Your task to perform on an android device: find which apps use the phone's location Image 0: 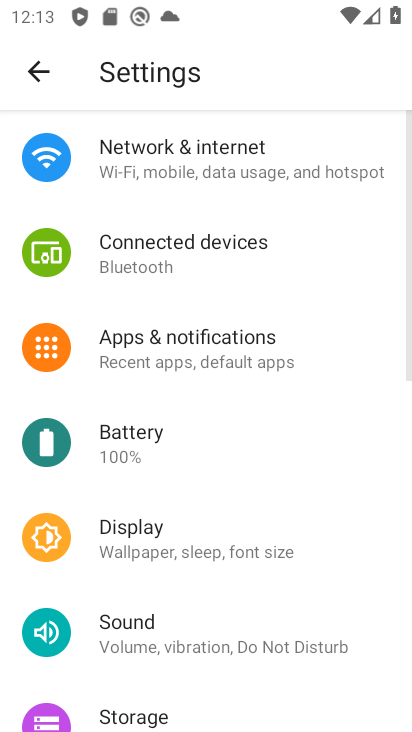
Step 0: drag from (187, 670) to (373, 246)
Your task to perform on an android device: find which apps use the phone's location Image 1: 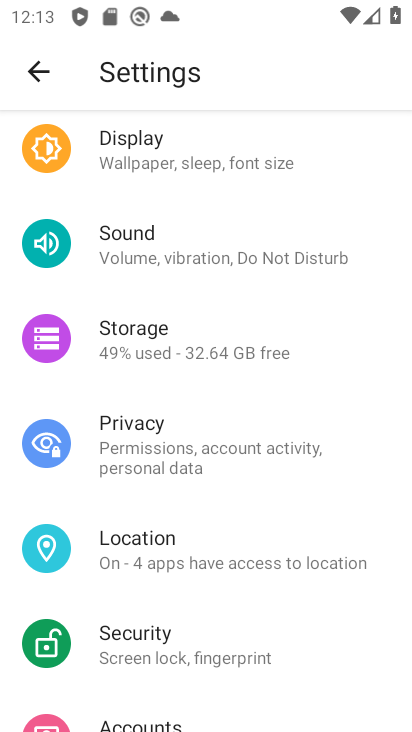
Step 1: click (220, 565)
Your task to perform on an android device: find which apps use the phone's location Image 2: 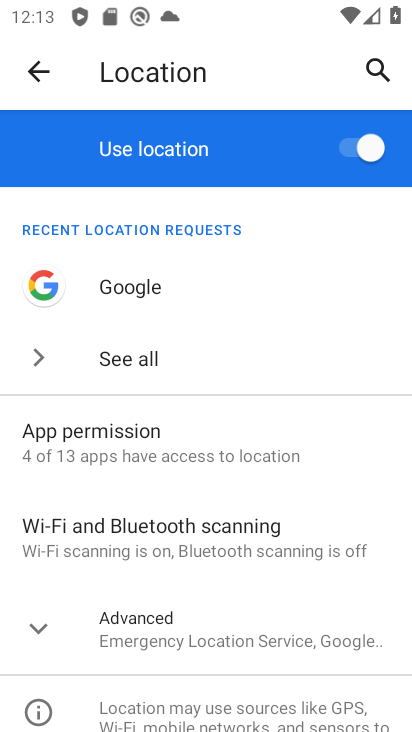
Step 2: click (251, 464)
Your task to perform on an android device: find which apps use the phone's location Image 3: 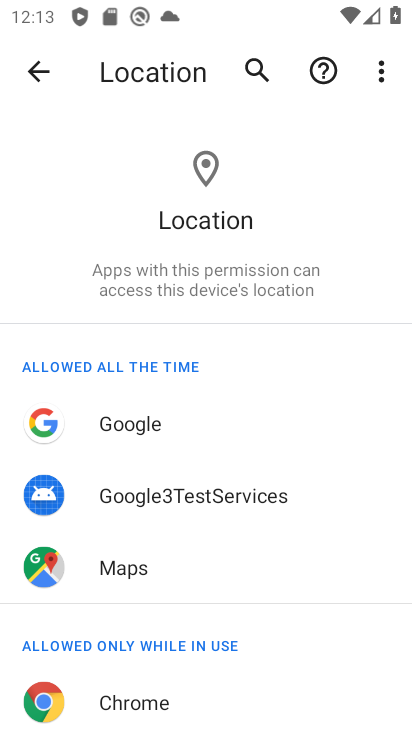
Step 3: task complete